Your task to perform on an android device: Go to battery settings Image 0: 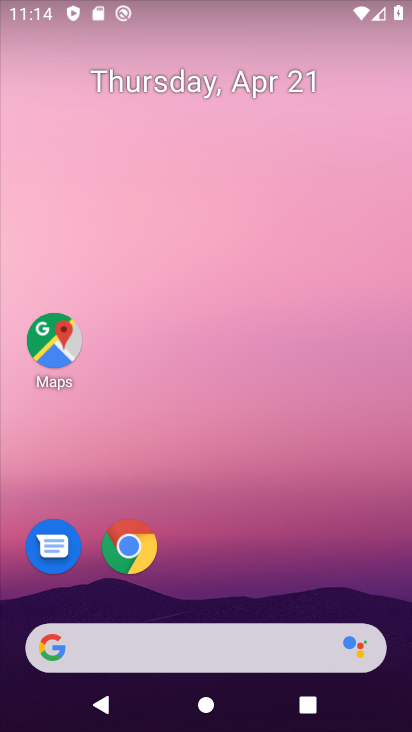
Step 0: drag from (207, 619) to (208, 128)
Your task to perform on an android device: Go to battery settings Image 1: 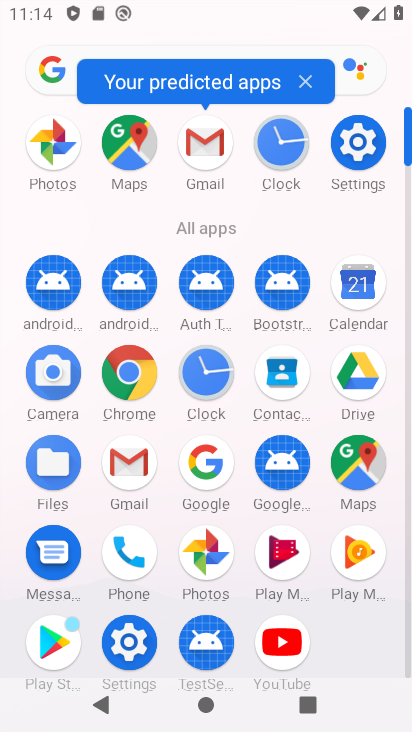
Step 1: click (359, 150)
Your task to perform on an android device: Go to battery settings Image 2: 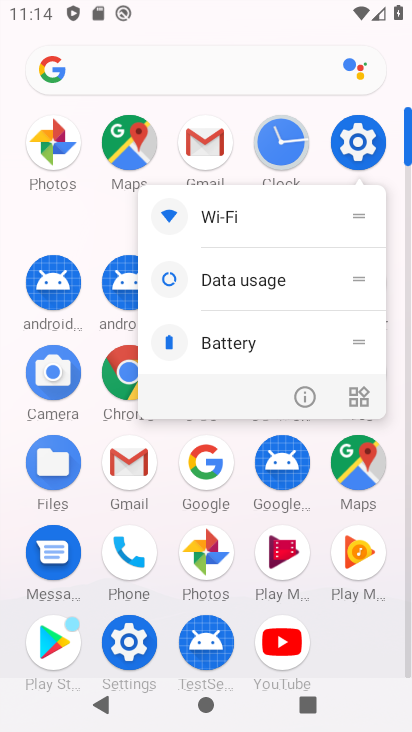
Step 2: click (360, 134)
Your task to perform on an android device: Go to battery settings Image 3: 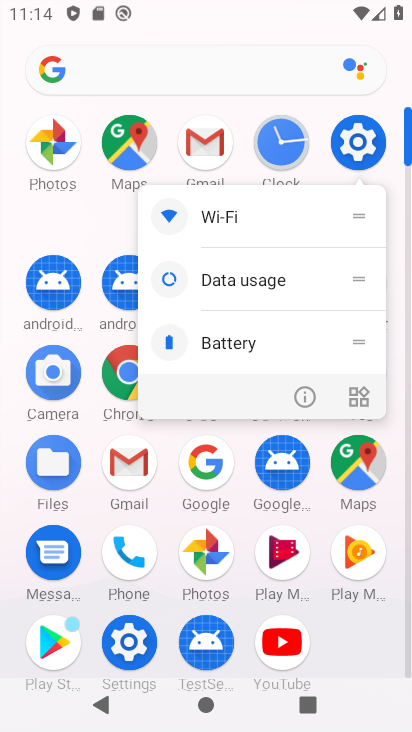
Step 3: click (360, 134)
Your task to perform on an android device: Go to battery settings Image 4: 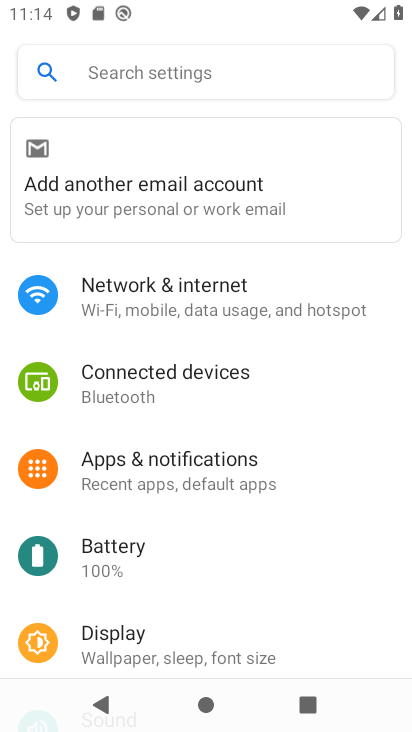
Step 4: drag from (160, 603) to (194, 301)
Your task to perform on an android device: Go to battery settings Image 5: 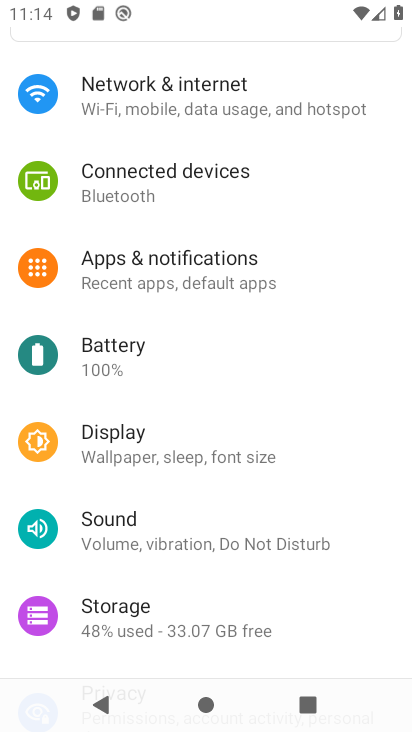
Step 5: click (136, 365)
Your task to perform on an android device: Go to battery settings Image 6: 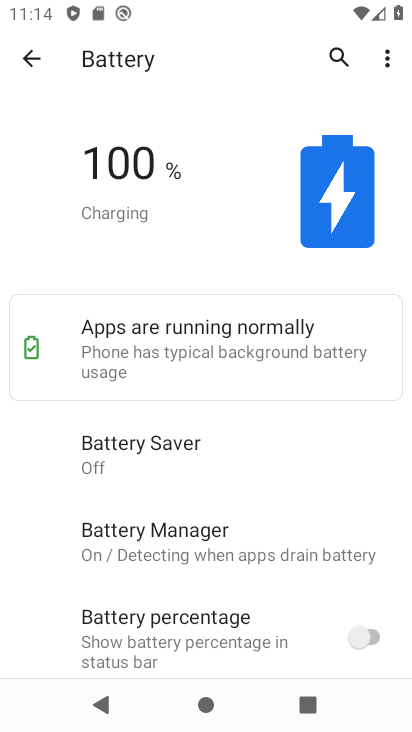
Step 6: click (155, 450)
Your task to perform on an android device: Go to battery settings Image 7: 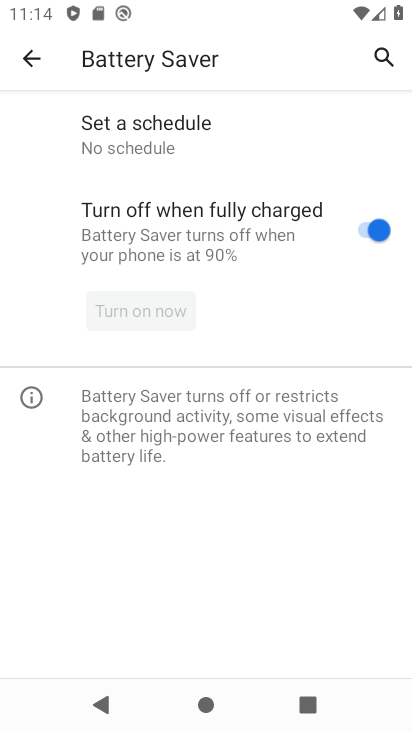
Step 7: task complete